Your task to perform on an android device: toggle data saver in the chrome app Image 0: 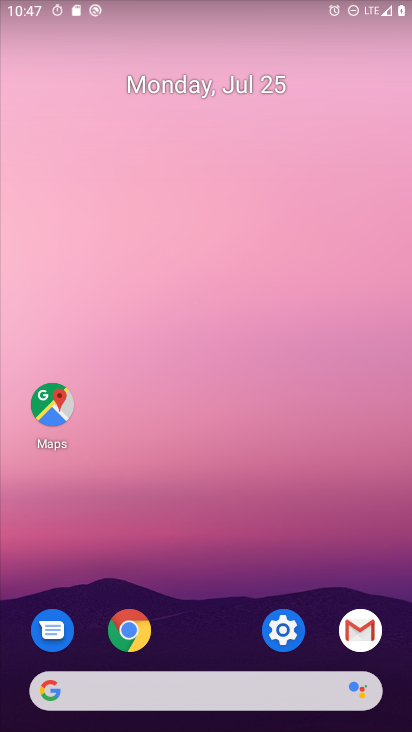
Step 0: click (144, 629)
Your task to perform on an android device: toggle data saver in the chrome app Image 1: 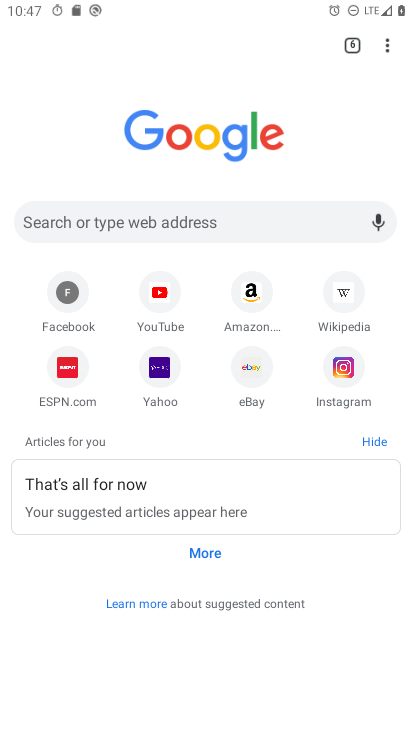
Step 1: click (383, 52)
Your task to perform on an android device: toggle data saver in the chrome app Image 2: 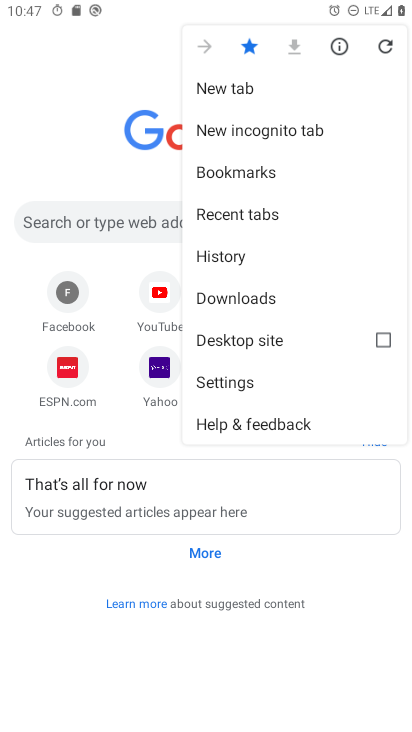
Step 2: click (231, 384)
Your task to perform on an android device: toggle data saver in the chrome app Image 3: 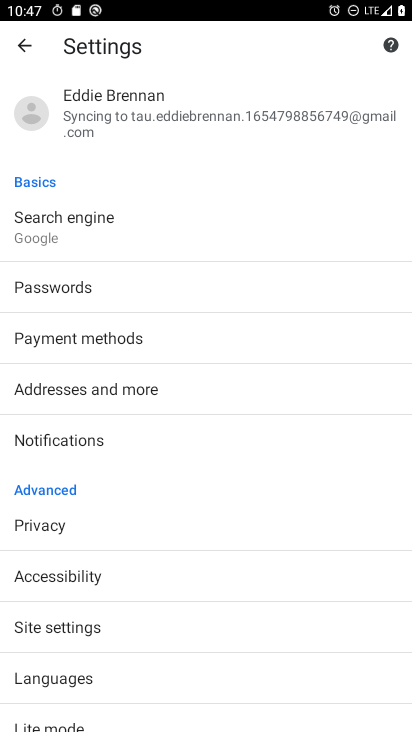
Step 3: click (65, 720)
Your task to perform on an android device: toggle data saver in the chrome app Image 4: 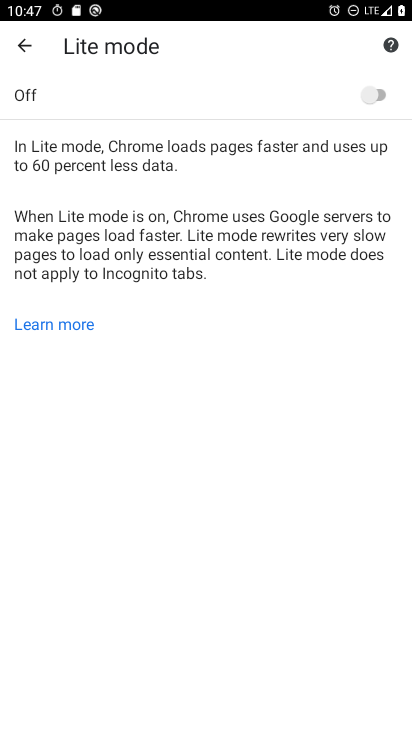
Step 4: click (378, 99)
Your task to perform on an android device: toggle data saver in the chrome app Image 5: 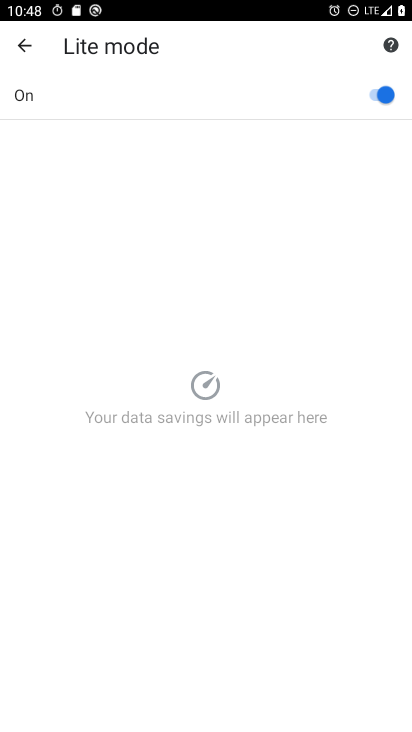
Step 5: task complete